Your task to perform on an android device: What's the weather going to be this weekend? Image 0: 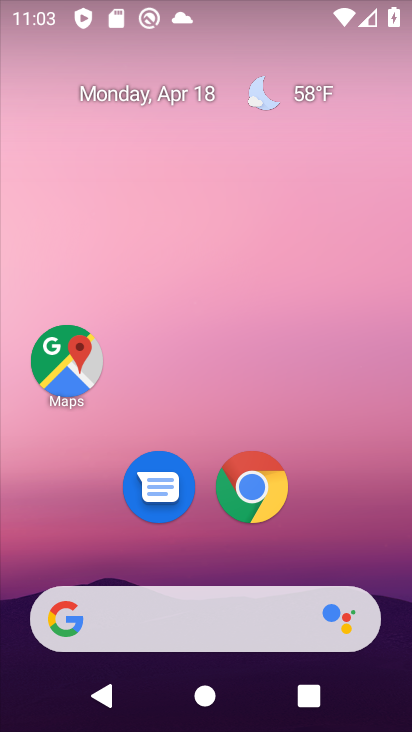
Step 0: click (306, 106)
Your task to perform on an android device: What's the weather going to be this weekend? Image 1: 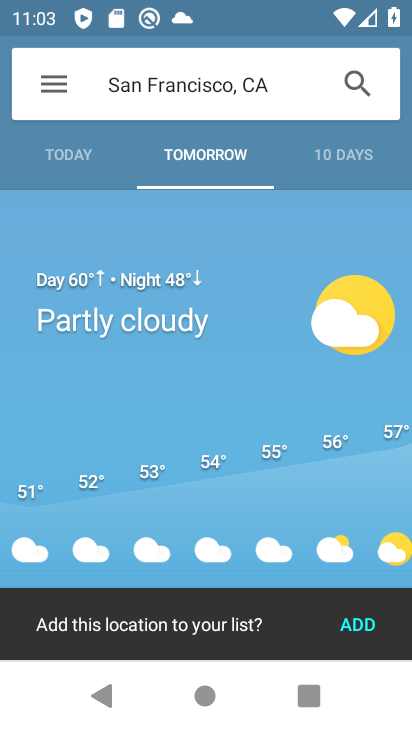
Step 1: click (338, 165)
Your task to perform on an android device: What's the weather going to be this weekend? Image 2: 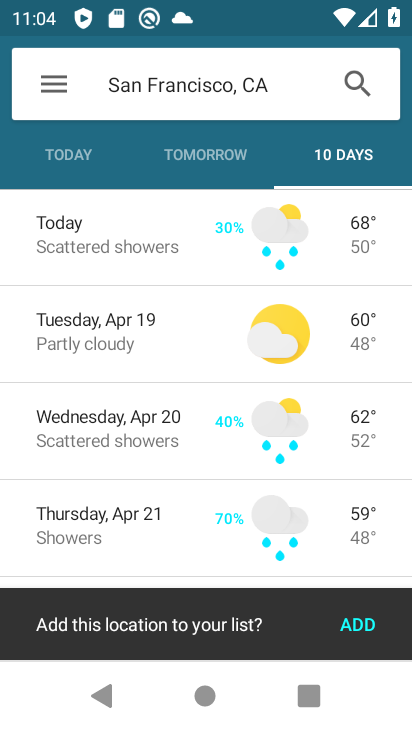
Step 2: task complete